Your task to perform on an android device: change the clock style Image 0: 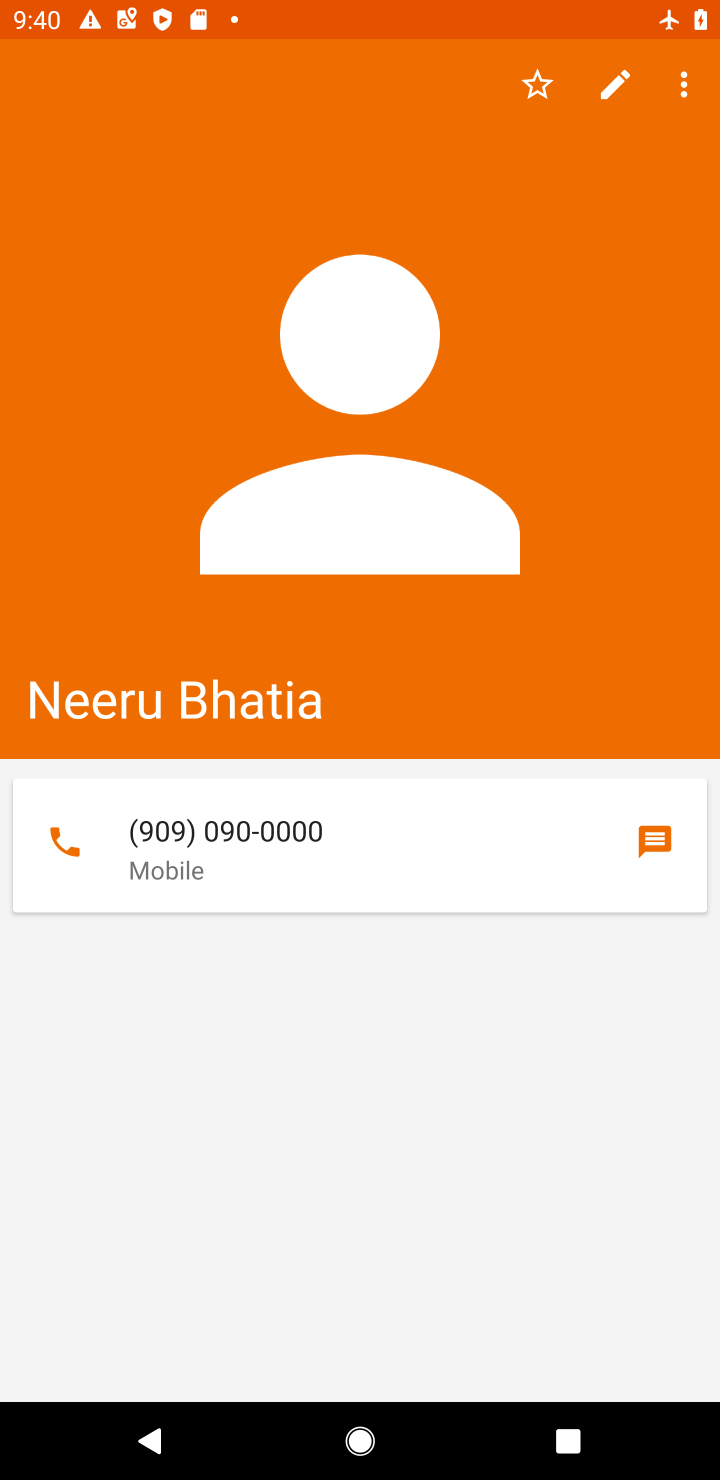
Step 0: press home button
Your task to perform on an android device: change the clock style Image 1: 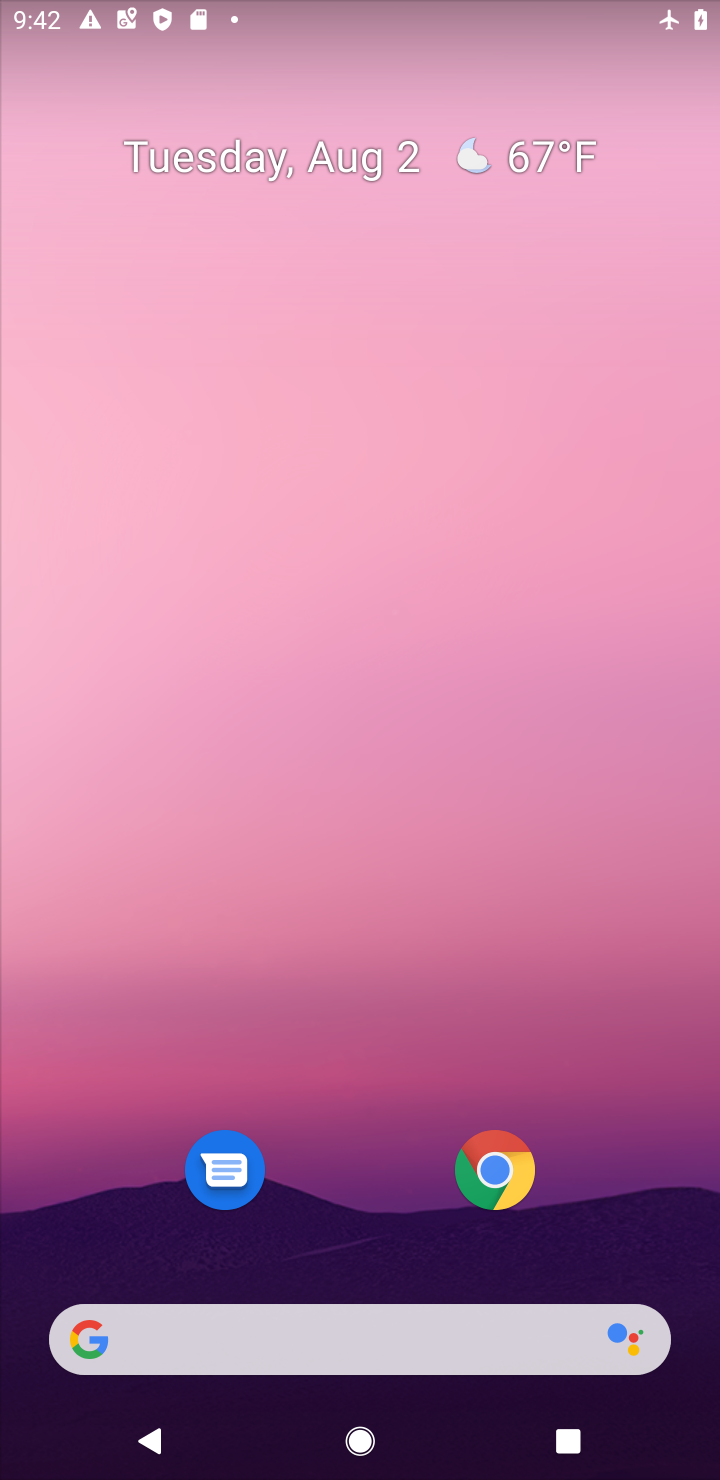
Step 1: drag from (450, 18) to (433, 147)
Your task to perform on an android device: change the clock style Image 2: 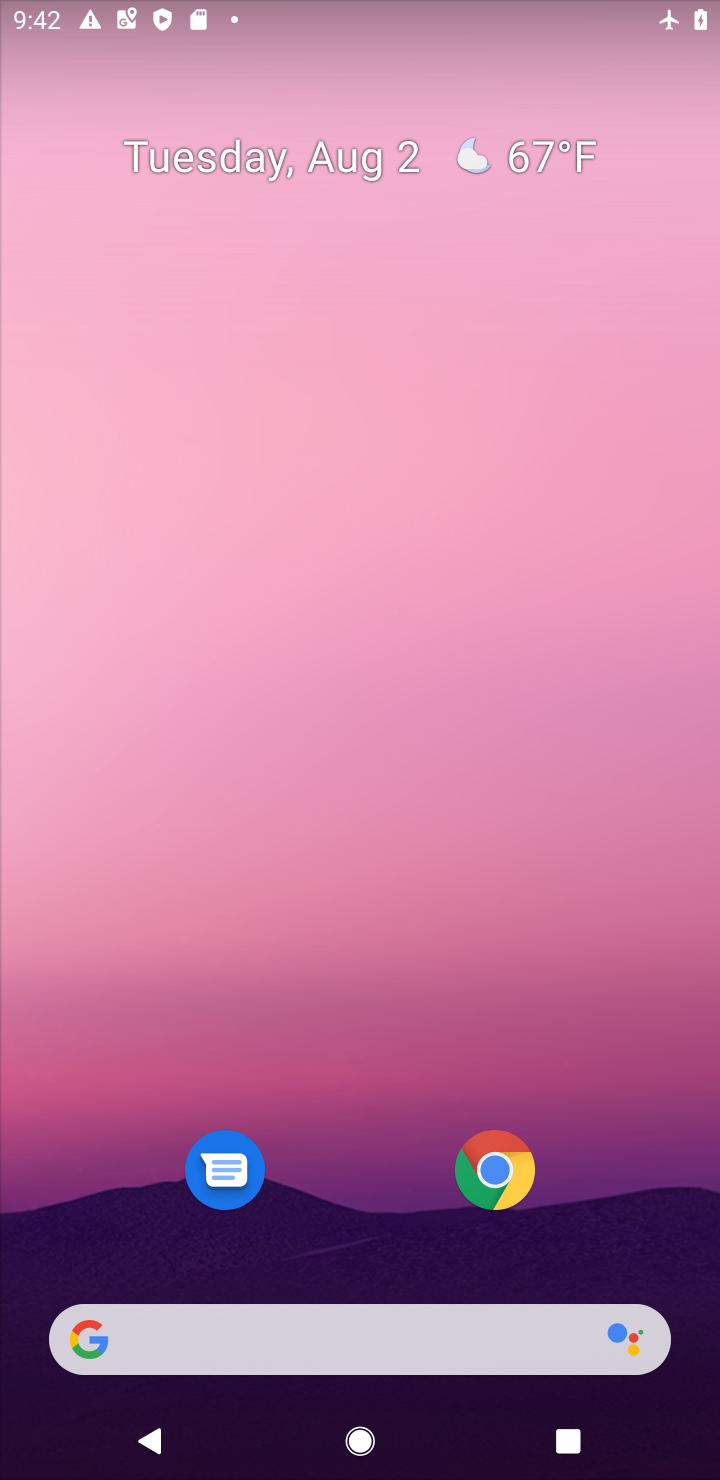
Step 2: drag from (335, 1180) to (444, 149)
Your task to perform on an android device: change the clock style Image 3: 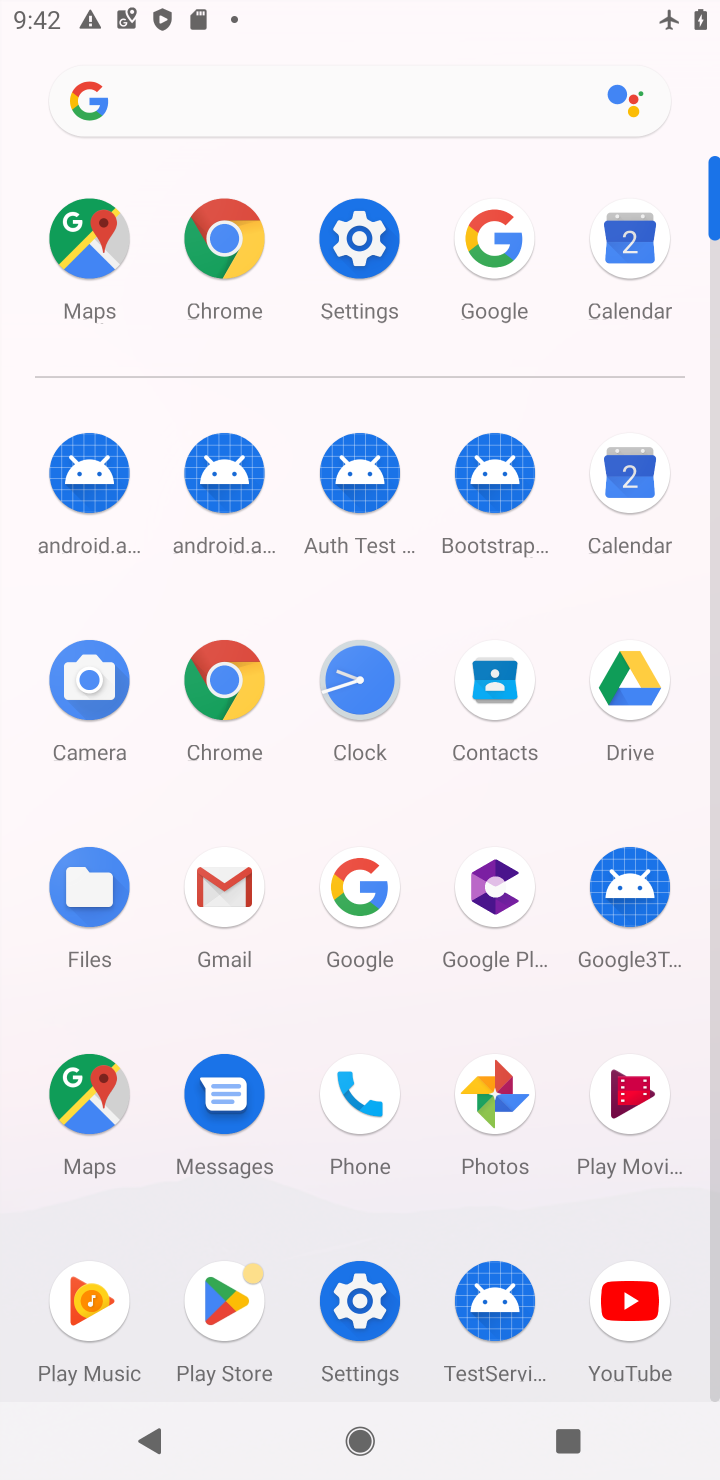
Step 3: click (341, 738)
Your task to perform on an android device: change the clock style Image 4: 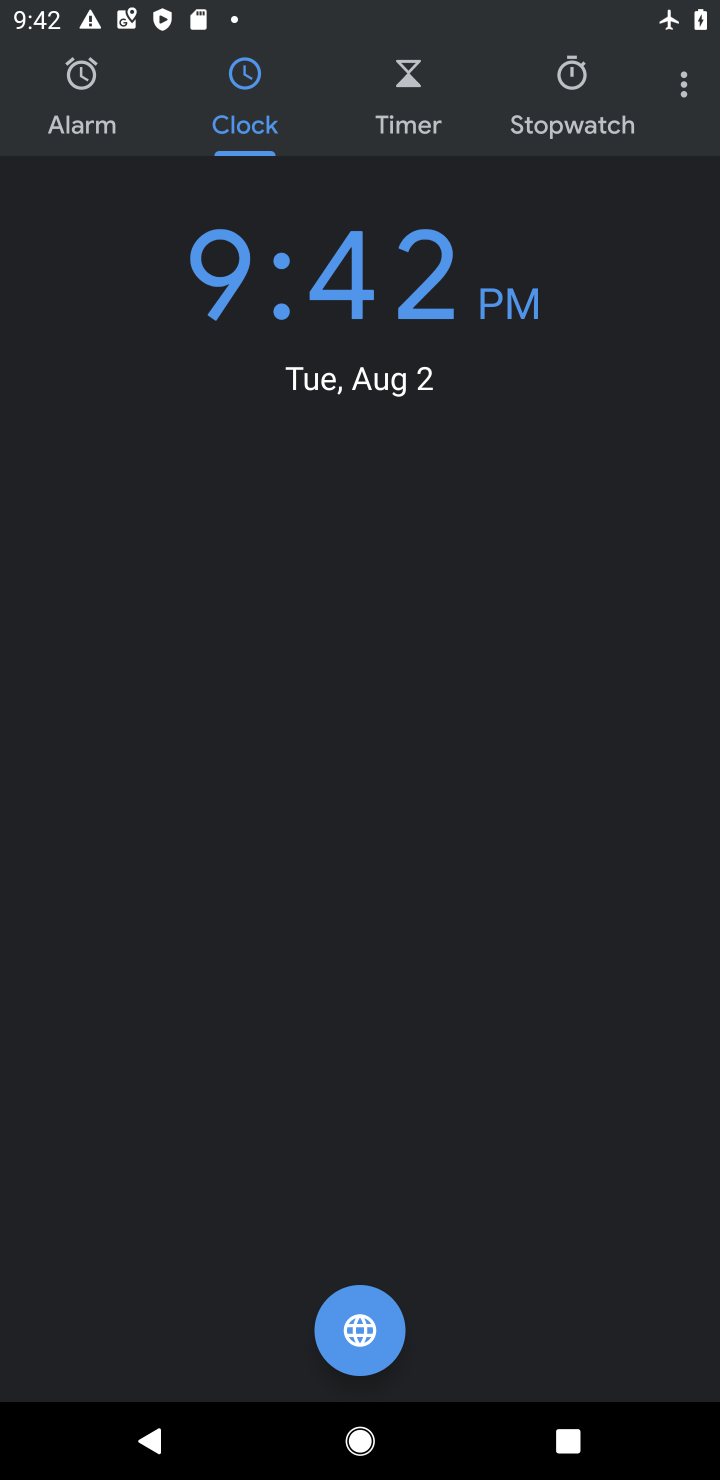
Step 4: click (688, 85)
Your task to perform on an android device: change the clock style Image 5: 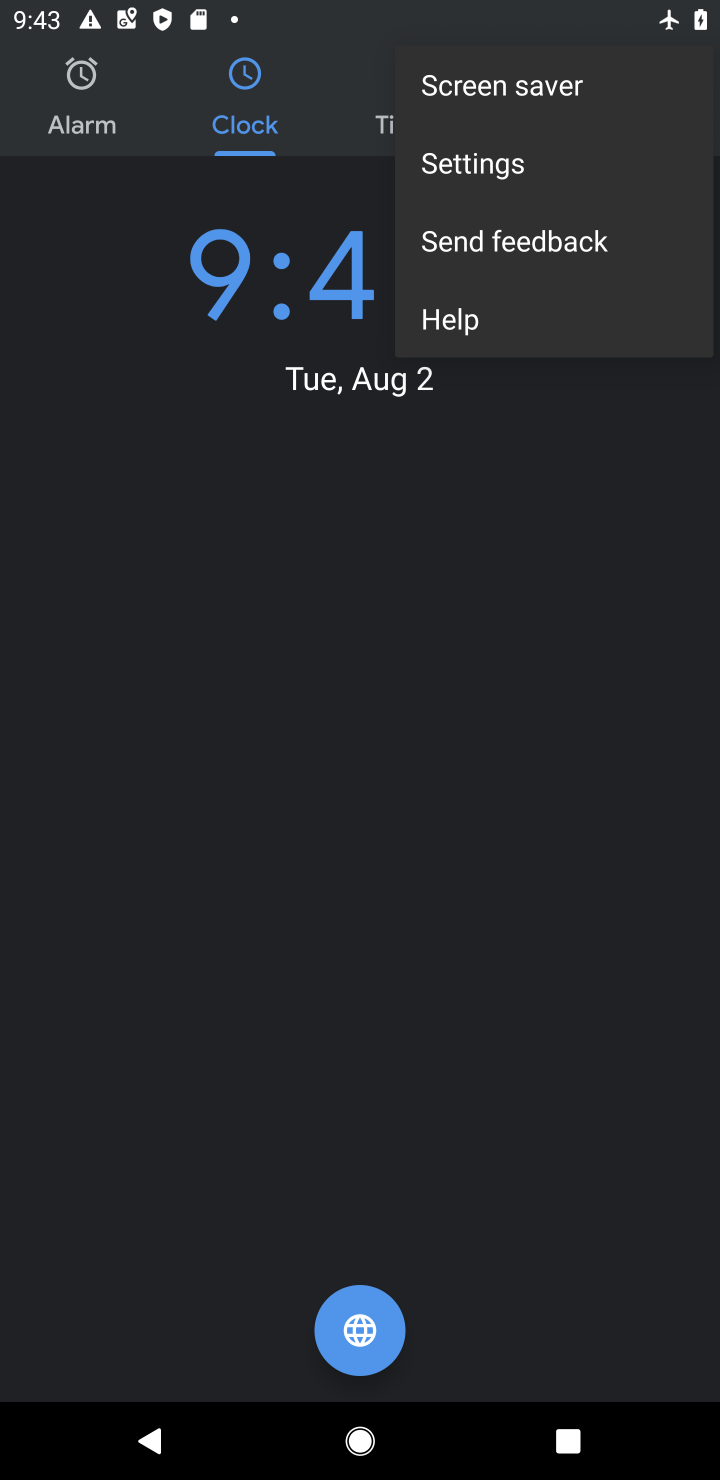
Step 5: click (506, 162)
Your task to perform on an android device: change the clock style Image 6: 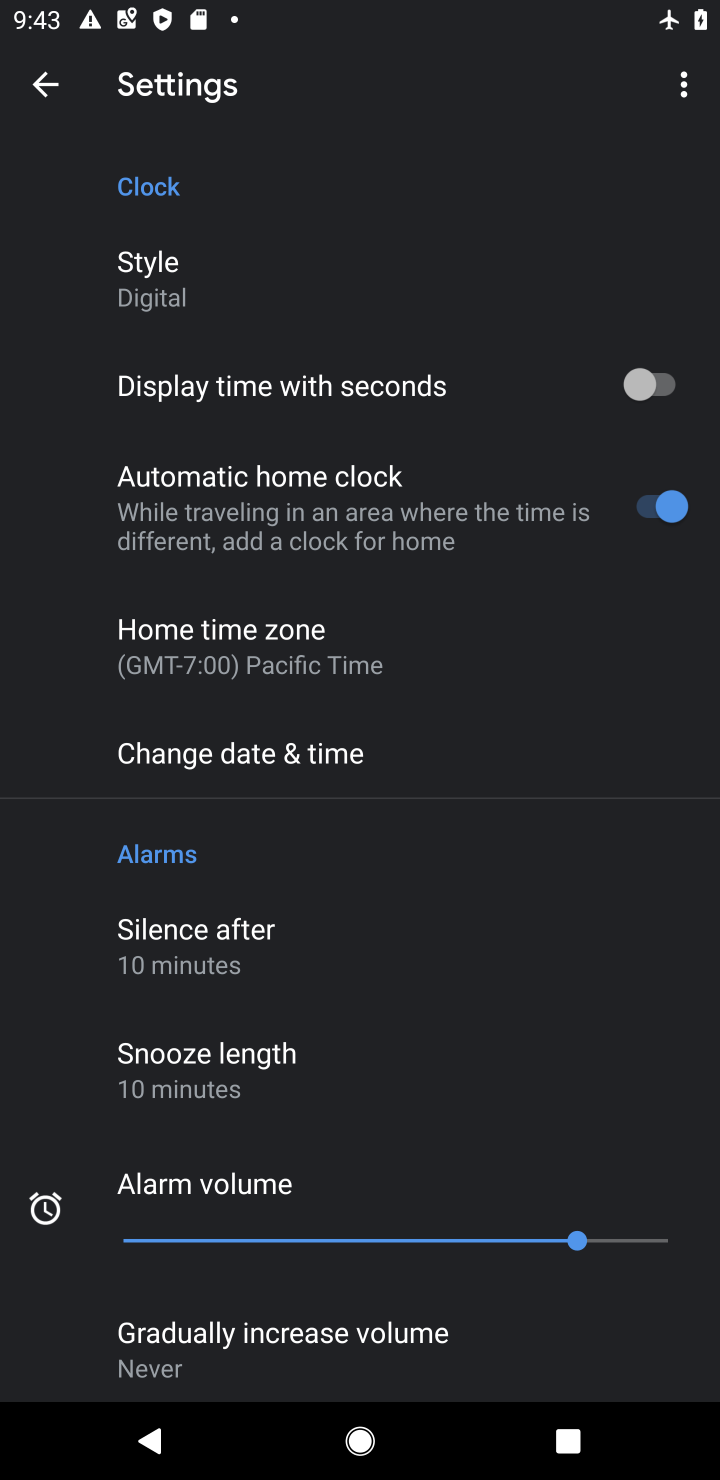
Step 6: click (178, 273)
Your task to perform on an android device: change the clock style Image 7: 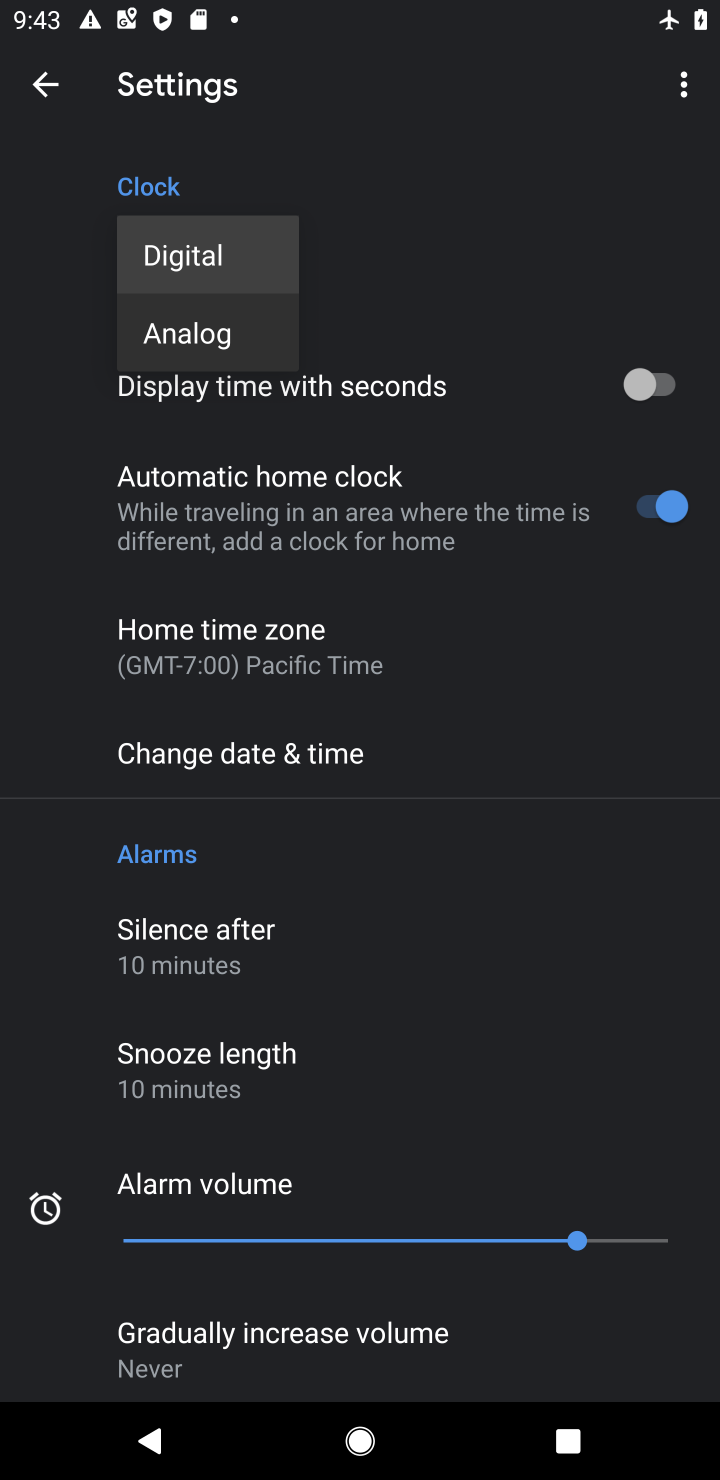
Step 7: click (187, 344)
Your task to perform on an android device: change the clock style Image 8: 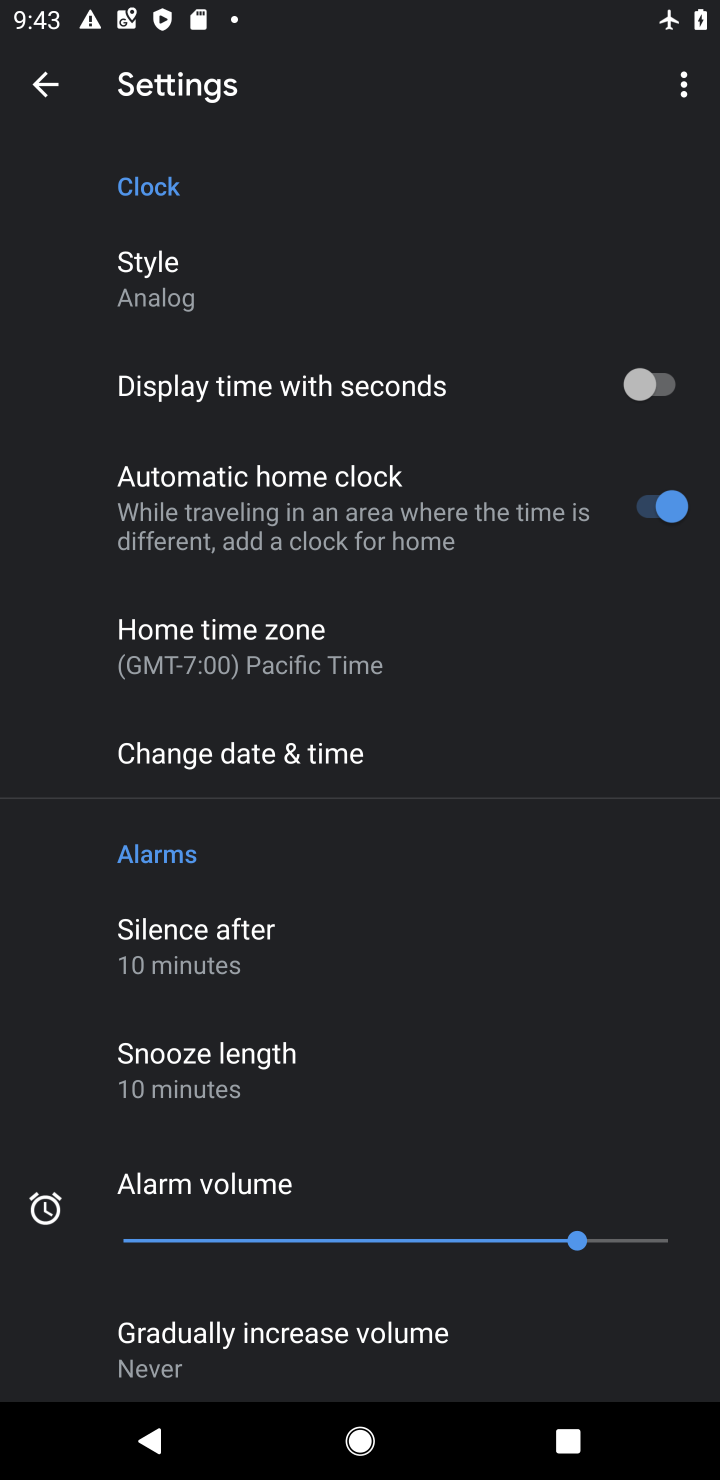
Step 8: task complete